Your task to perform on an android device: uninstall "Reddit" Image 0: 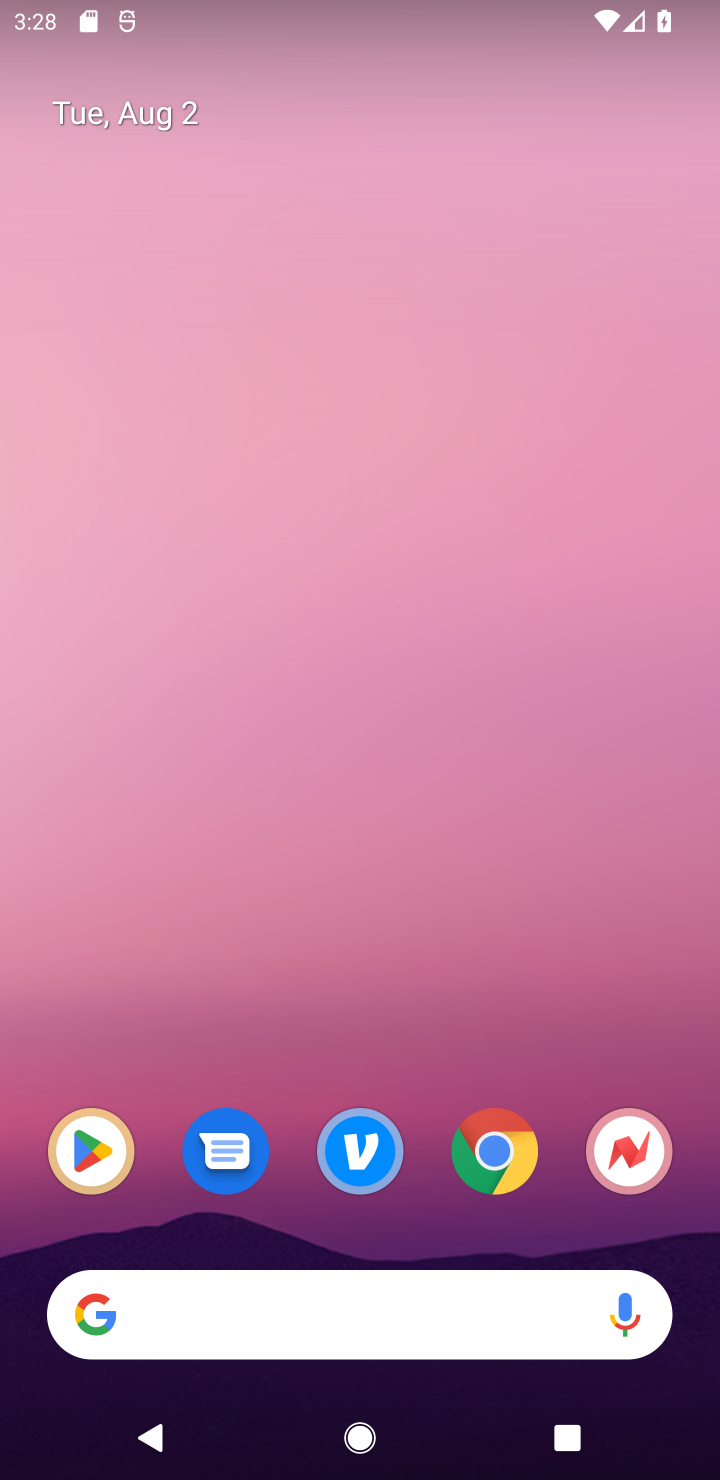
Step 0: drag from (376, 979) to (493, 220)
Your task to perform on an android device: uninstall "Reddit" Image 1: 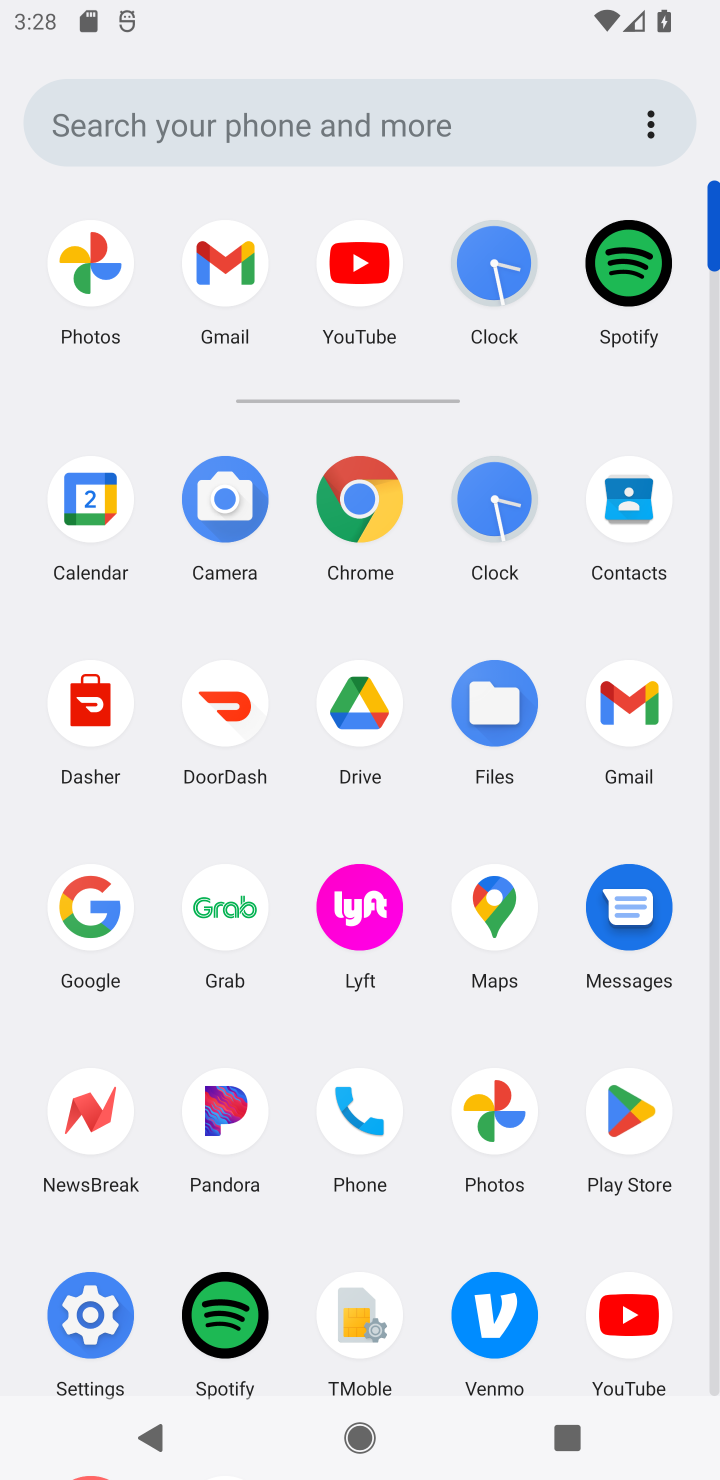
Step 1: click (617, 1104)
Your task to perform on an android device: uninstall "Reddit" Image 2: 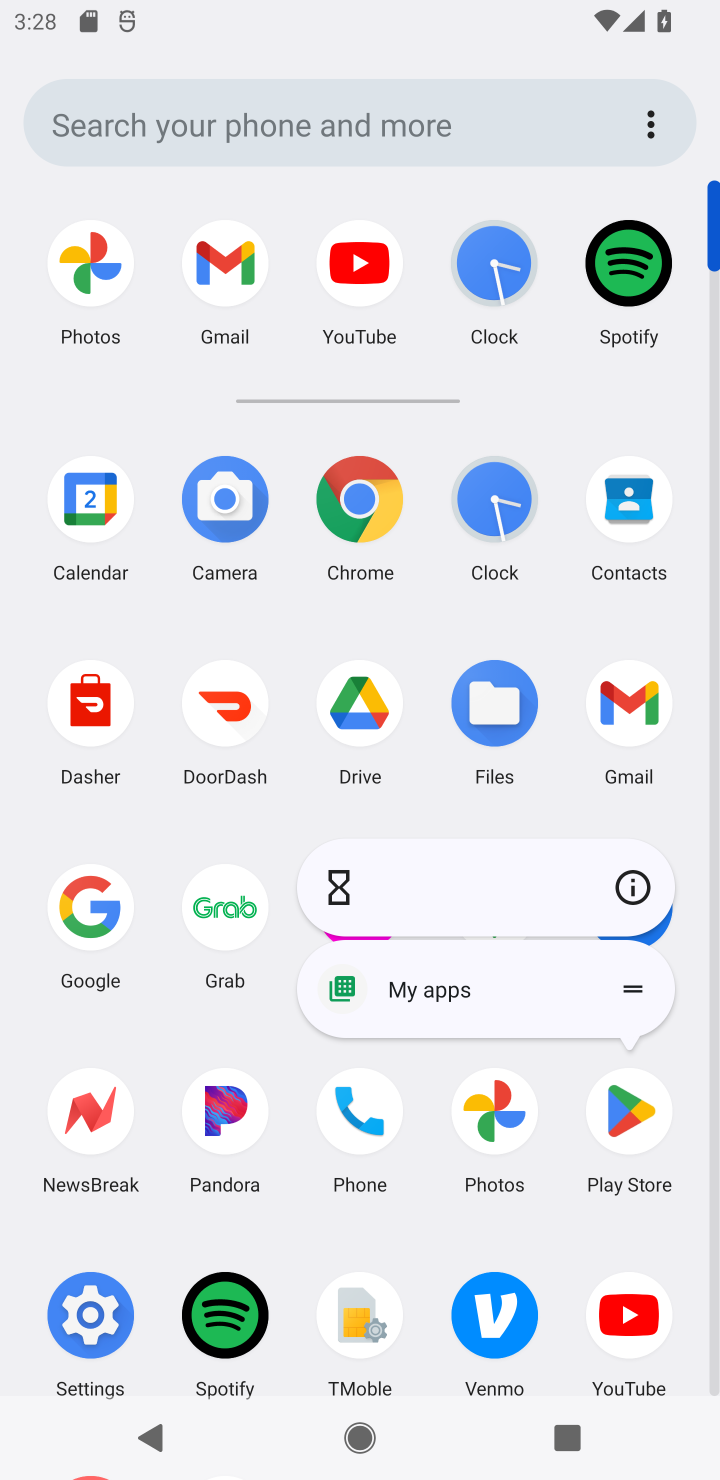
Step 2: click (624, 1130)
Your task to perform on an android device: uninstall "Reddit" Image 3: 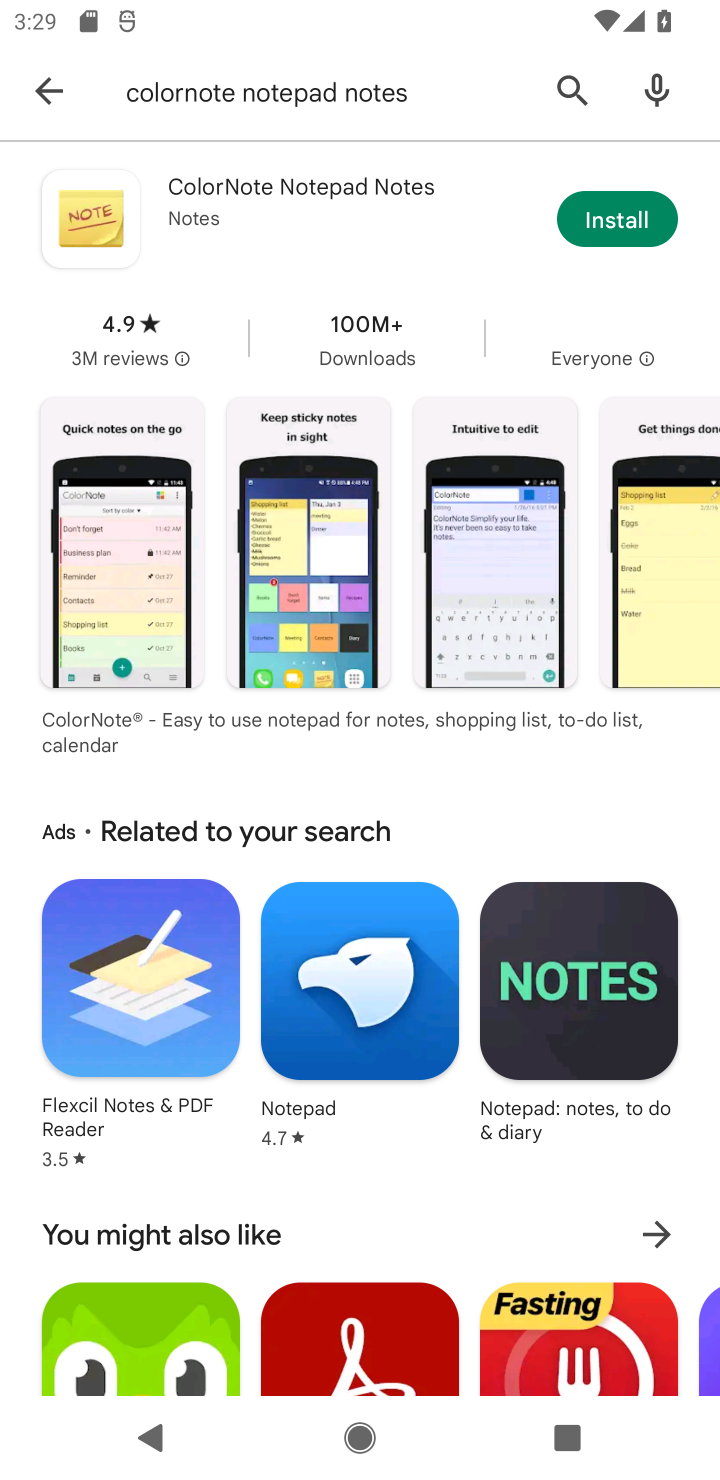
Step 3: click (42, 102)
Your task to perform on an android device: uninstall "Reddit" Image 4: 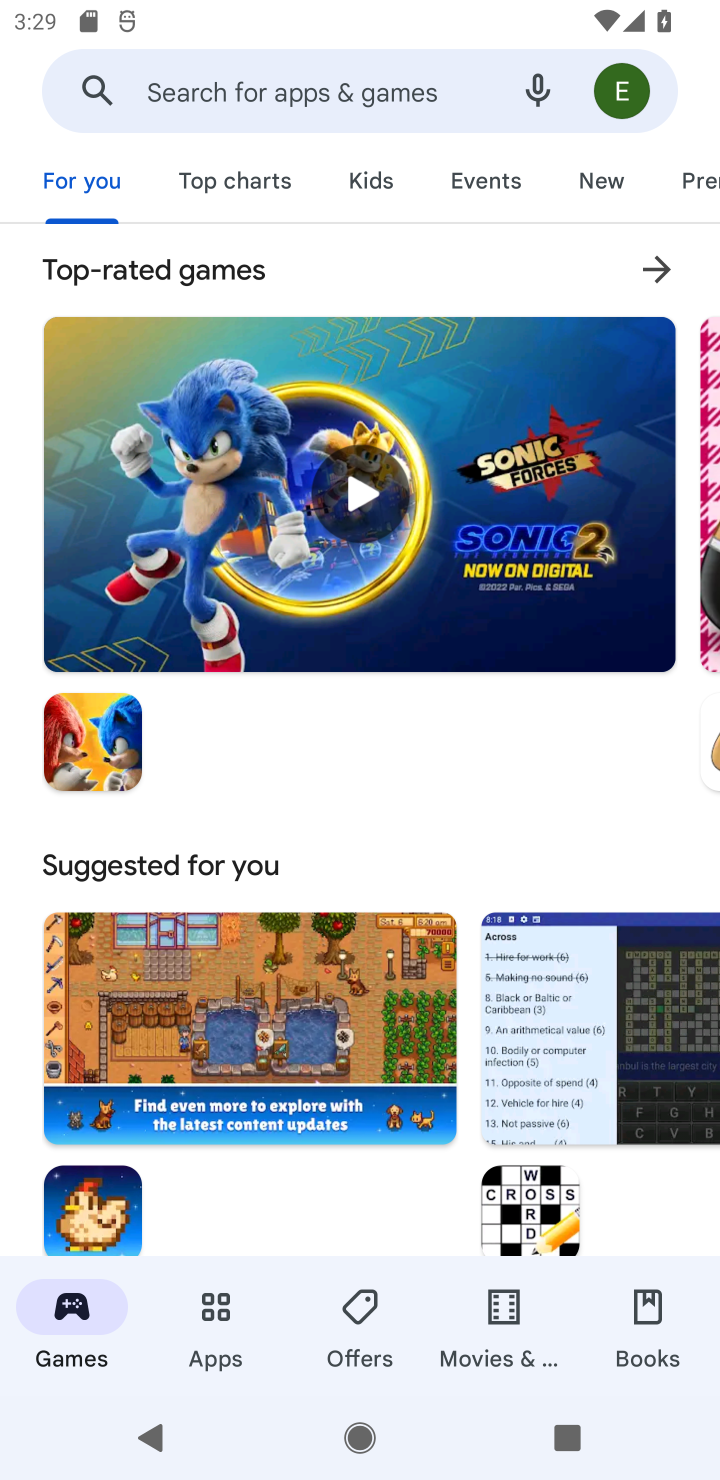
Step 4: click (215, 84)
Your task to perform on an android device: uninstall "Reddit" Image 5: 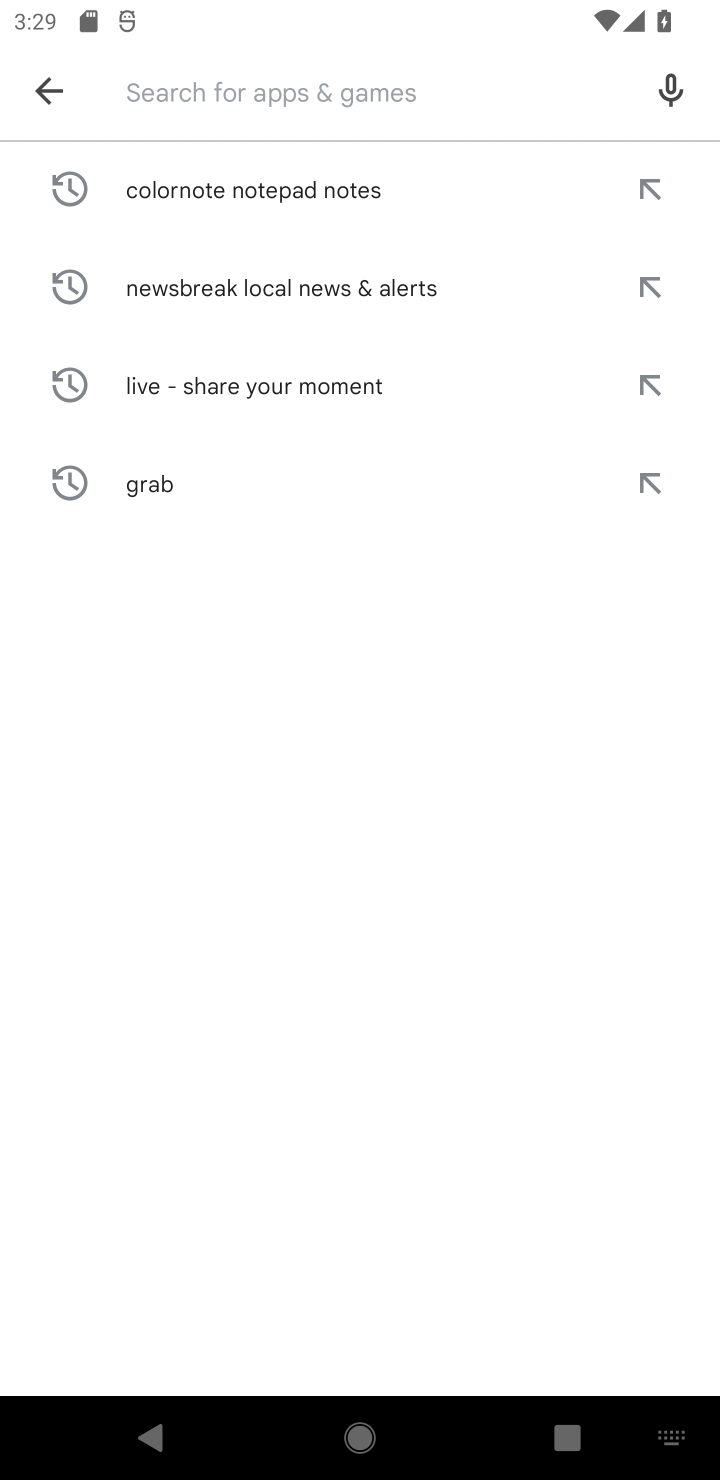
Step 5: type "Reddit"
Your task to perform on an android device: uninstall "Reddit" Image 6: 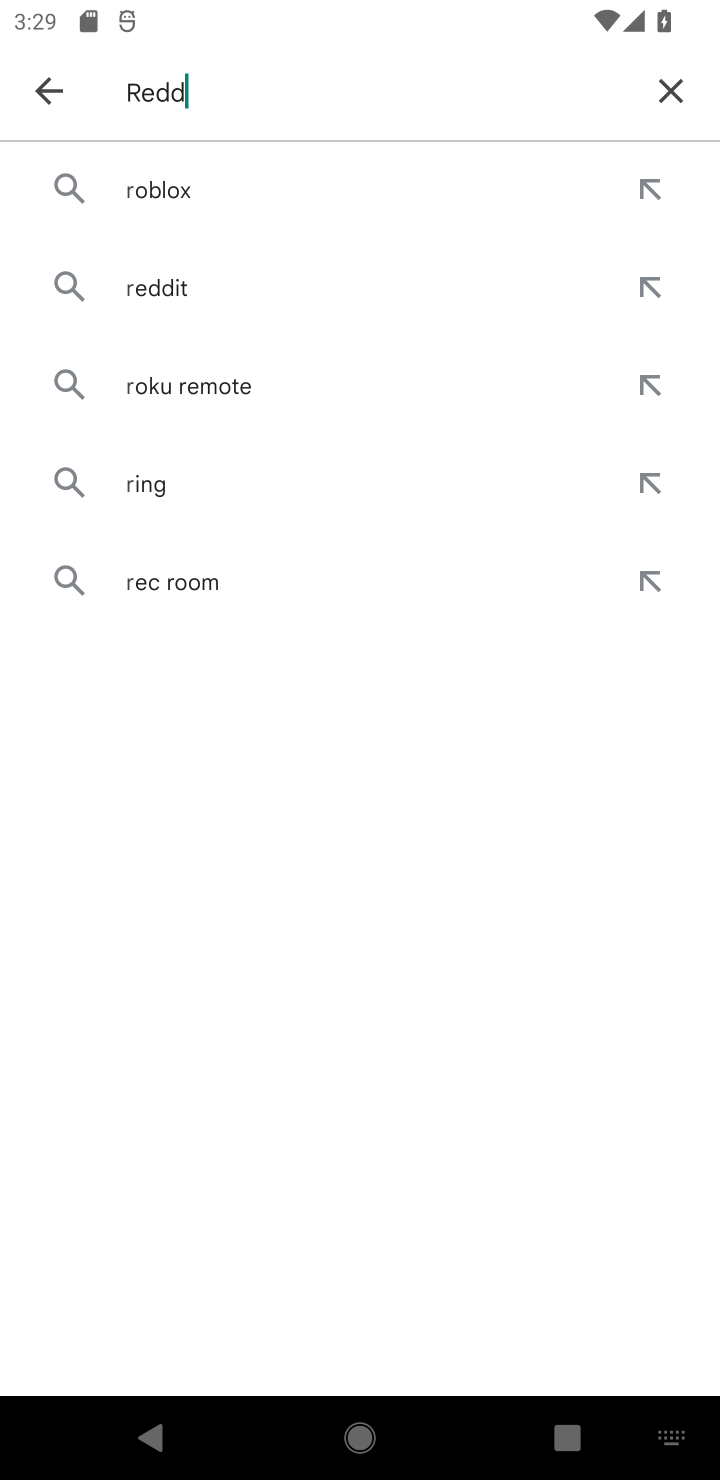
Step 6: type ""
Your task to perform on an android device: uninstall "Reddit" Image 7: 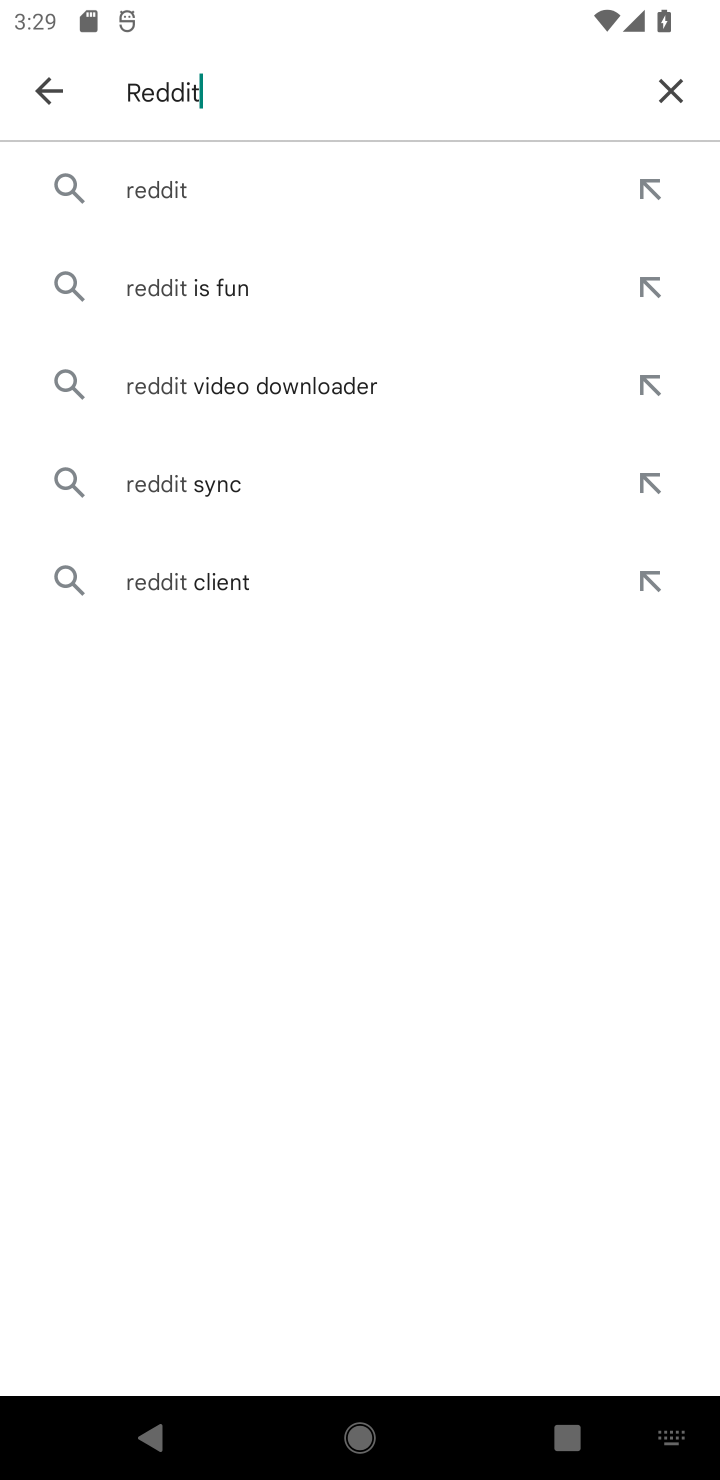
Step 7: click (193, 164)
Your task to perform on an android device: uninstall "Reddit" Image 8: 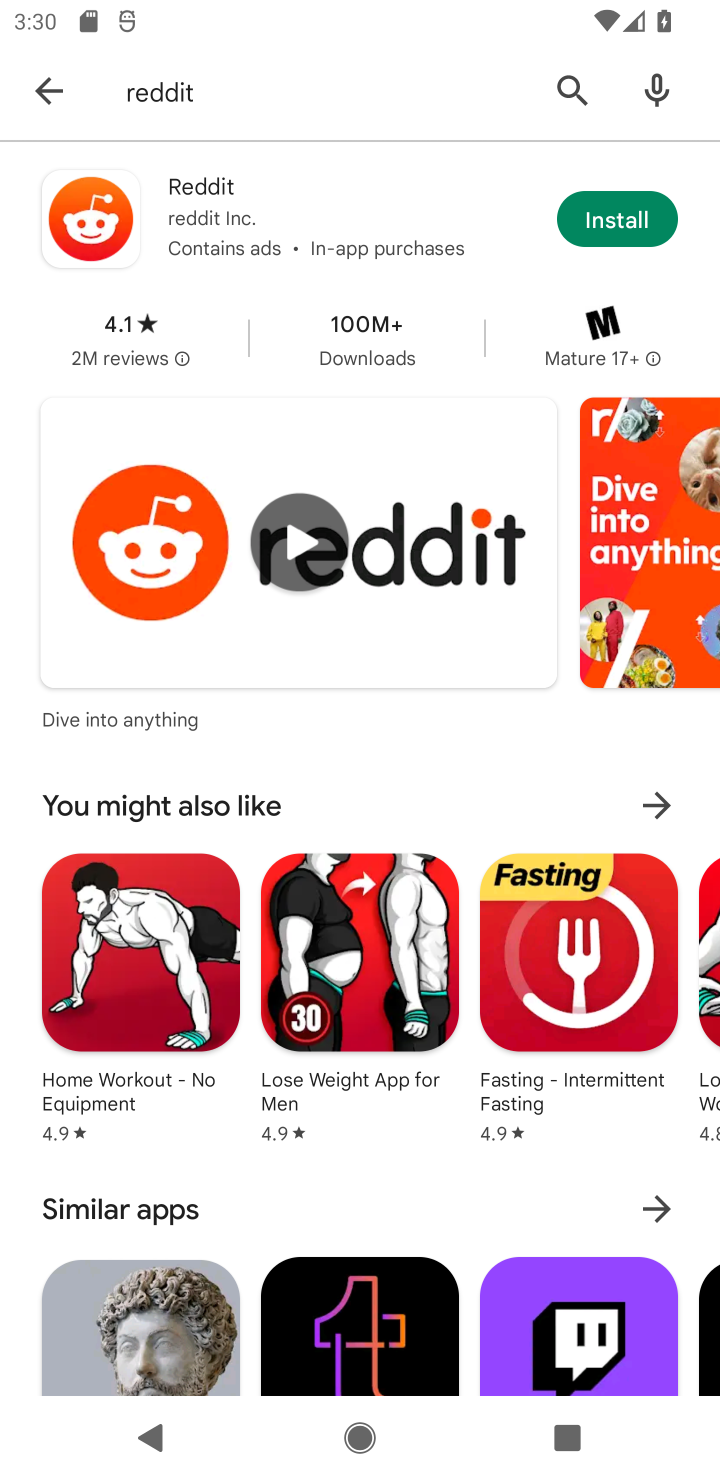
Step 8: task complete